Your task to perform on an android device: Empty the shopping cart on ebay. Add bose soundlink to the cart on ebay Image 0: 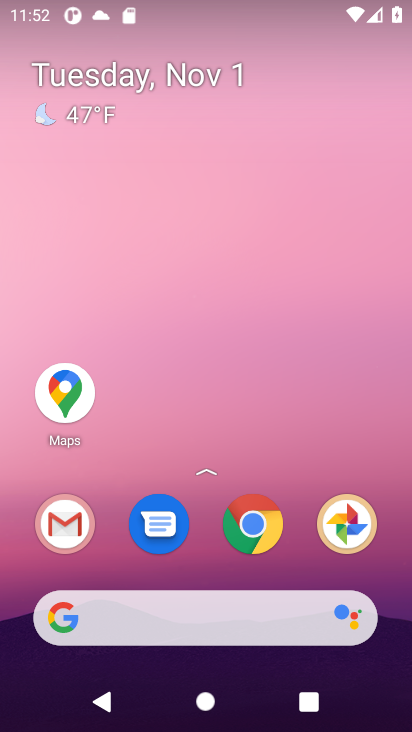
Step 0: press home button
Your task to perform on an android device: Empty the shopping cart on ebay. Add bose soundlink to the cart on ebay Image 1: 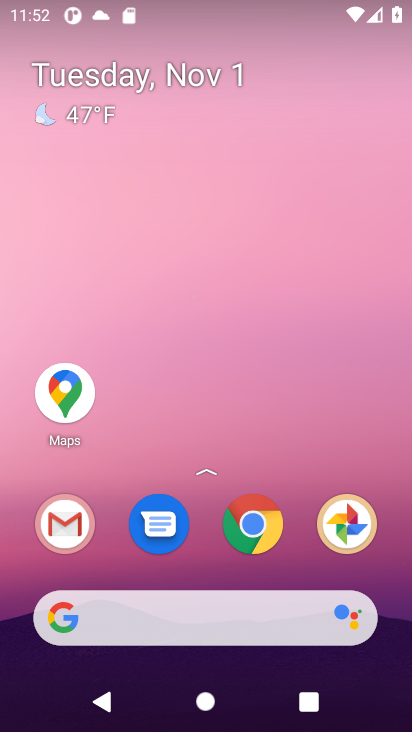
Step 1: click (85, 621)
Your task to perform on an android device: Empty the shopping cart on ebay. Add bose soundlink to the cart on ebay Image 2: 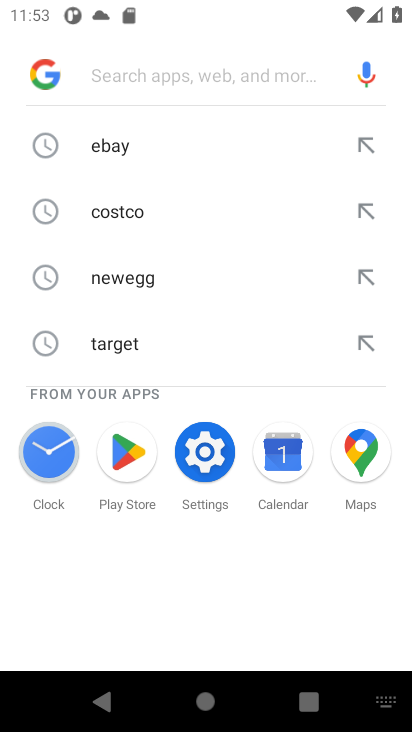
Step 2: type "ebay. "
Your task to perform on an android device: Empty the shopping cart on ebay. Add bose soundlink to the cart on ebay Image 3: 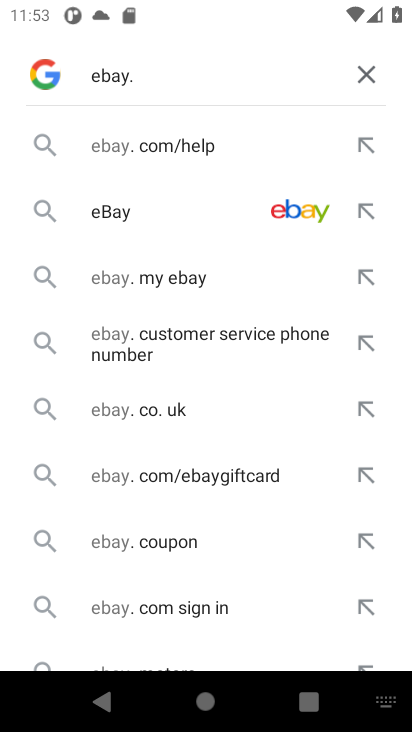
Step 3: press enter
Your task to perform on an android device: Empty the shopping cart on ebay. Add bose soundlink to the cart on ebay Image 4: 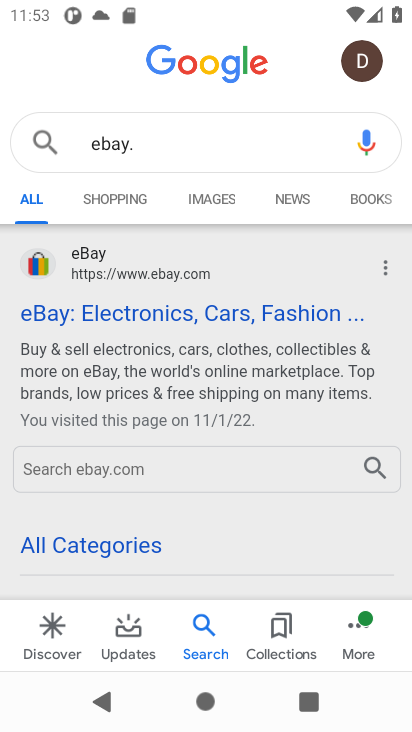
Step 4: click (132, 311)
Your task to perform on an android device: Empty the shopping cart on ebay. Add bose soundlink to the cart on ebay Image 5: 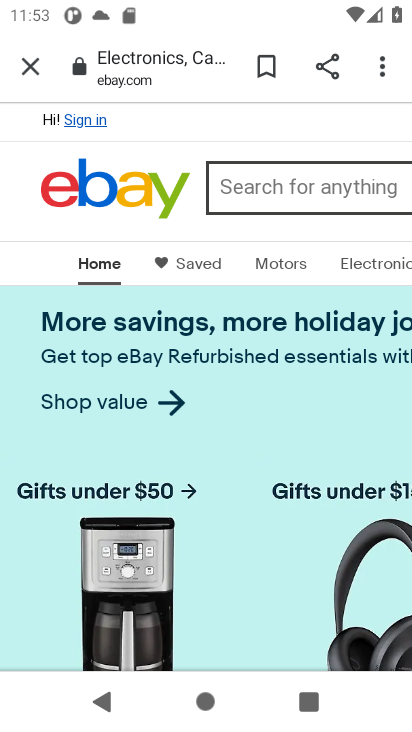
Step 5: drag from (344, 226) to (76, 215)
Your task to perform on an android device: Empty the shopping cart on ebay. Add bose soundlink to the cart on ebay Image 6: 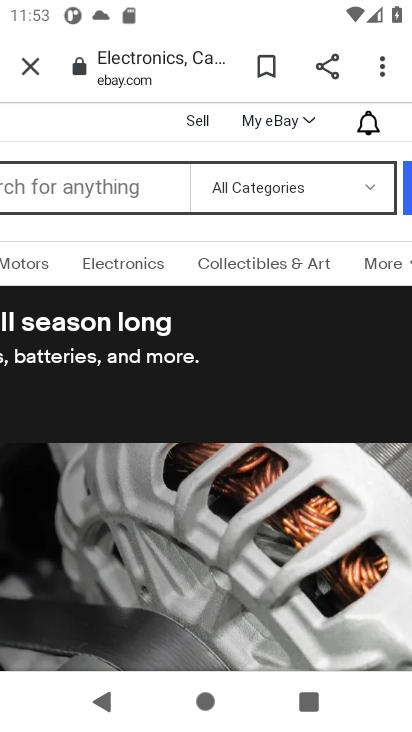
Step 6: drag from (387, 227) to (30, 233)
Your task to perform on an android device: Empty the shopping cart on ebay. Add bose soundlink to the cart on ebay Image 7: 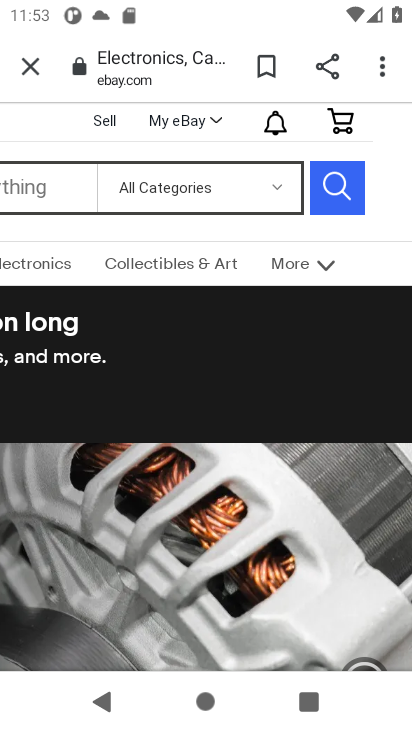
Step 7: click (342, 120)
Your task to perform on an android device: Empty the shopping cart on ebay. Add bose soundlink to the cart on ebay Image 8: 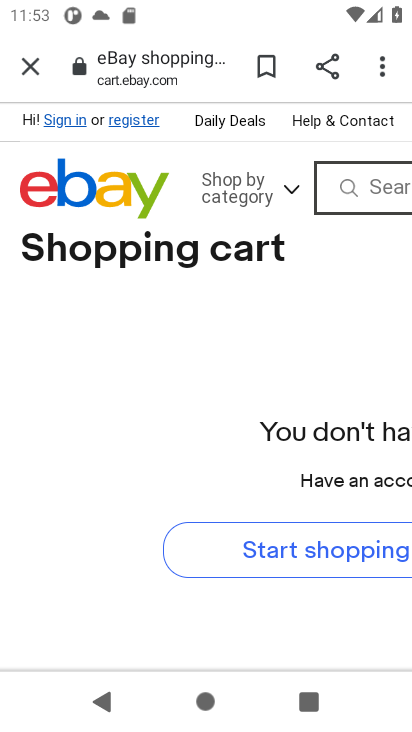
Step 8: click (361, 183)
Your task to perform on an android device: Empty the shopping cart on ebay. Add bose soundlink to the cart on ebay Image 9: 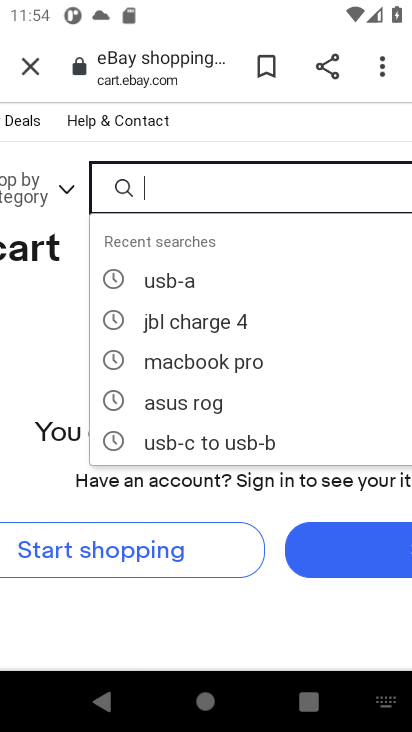
Step 9: type "bose soundlink"
Your task to perform on an android device: Empty the shopping cart on ebay. Add bose soundlink to the cart on ebay Image 10: 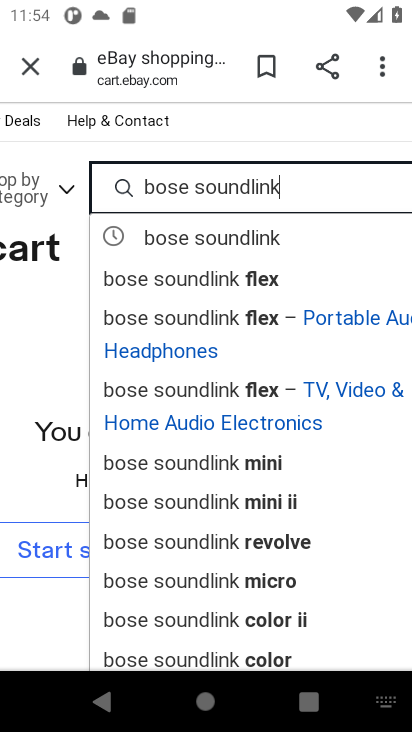
Step 10: press enter
Your task to perform on an android device: Empty the shopping cart on ebay. Add bose soundlink to the cart on ebay Image 11: 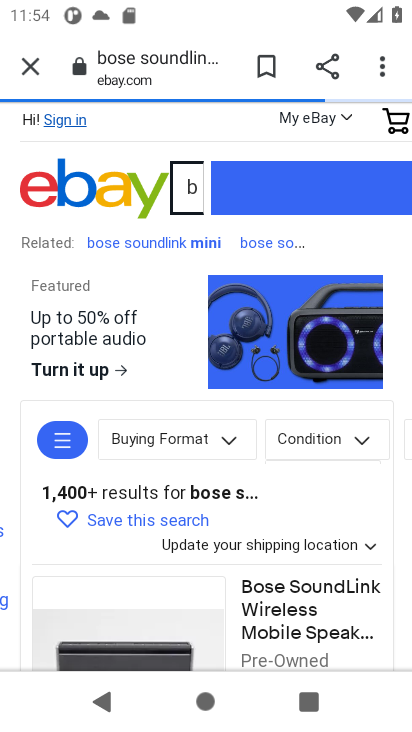
Step 11: drag from (283, 526) to (278, 438)
Your task to perform on an android device: Empty the shopping cart on ebay. Add bose soundlink to the cart on ebay Image 12: 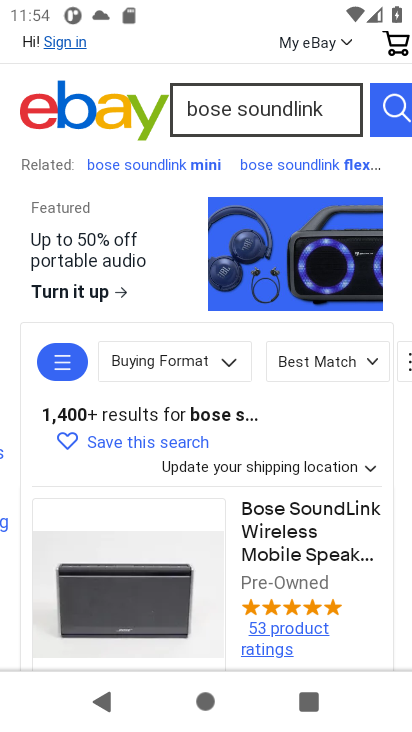
Step 12: drag from (265, 613) to (277, 420)
Your task to perform on an android device: Empty the shopping cart on ebay. Add bose soundlink to the cart on ebay Image 13: 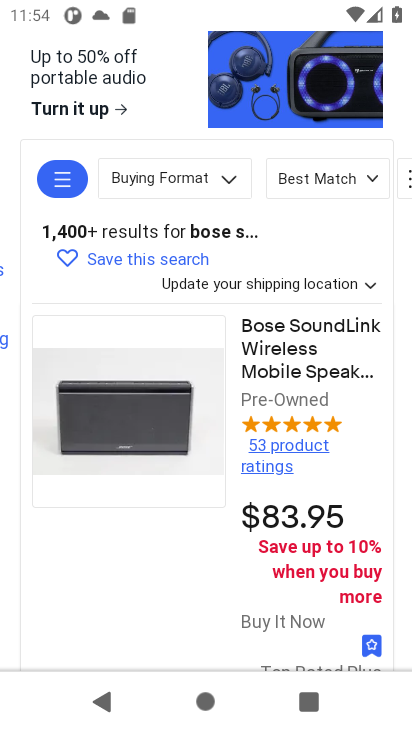
Step 13: click (303, 339)
Your task to perform on an android device: Empty the shopping cart on ebay. Add bose soundlink to the cart on ebay Image 14: 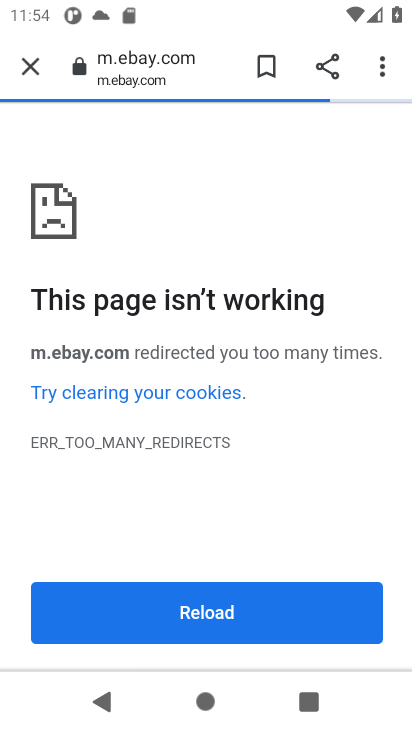
Step 14: task complete